Your task to perform on an android device: search for starred emails in the gmail app Image 0: 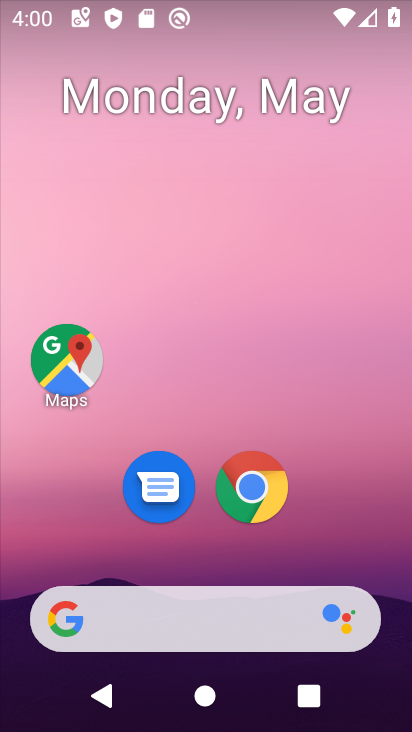
Step 0: drag from (290, 472) to (404, 198)
Your task to perform on an android device: search for starred emails in the gmail app Image 1: 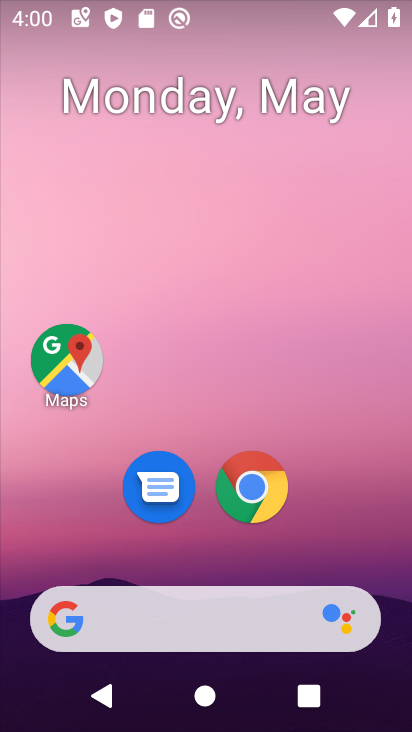
Step 1: click (239, 150)
Your task to perform on an android device: search for starred emails in the gmail app Image 2: 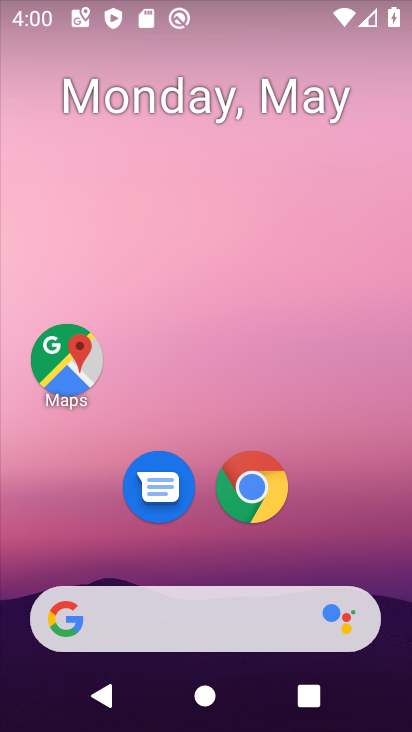
Step 2: drag from (224, 579) to (247, 129)
Your task to perform on an android device: search for starred emails in the gmail app Image 3: 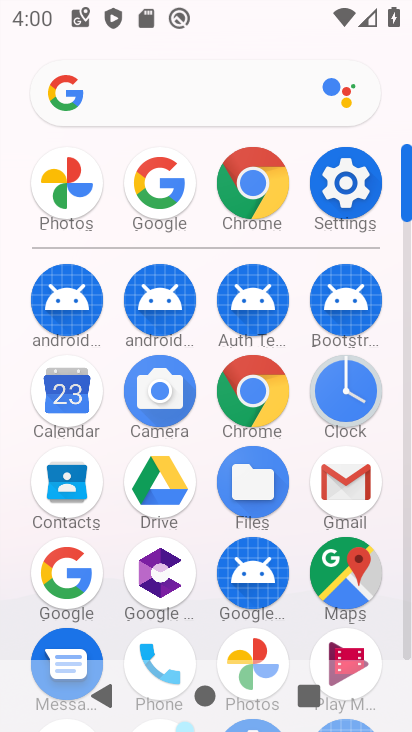
Step 3: click (325, 493)
Your task to perform on an android device: search for starred emails in the gmail app Image 4: 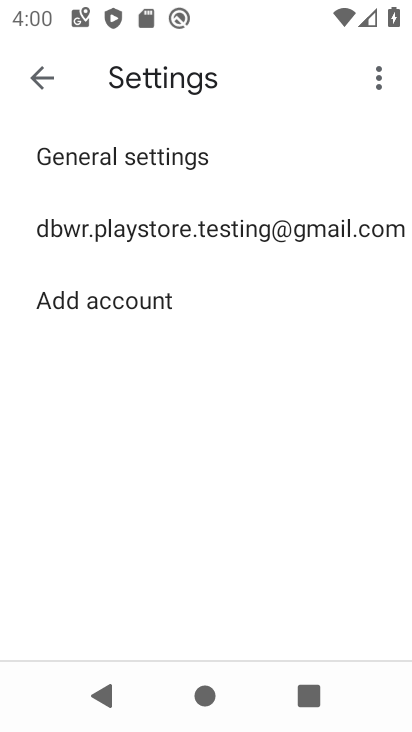
Step 4: click (42, 84)
Your task to perform on an android device: search for starred emails in the gmail app Image 5: 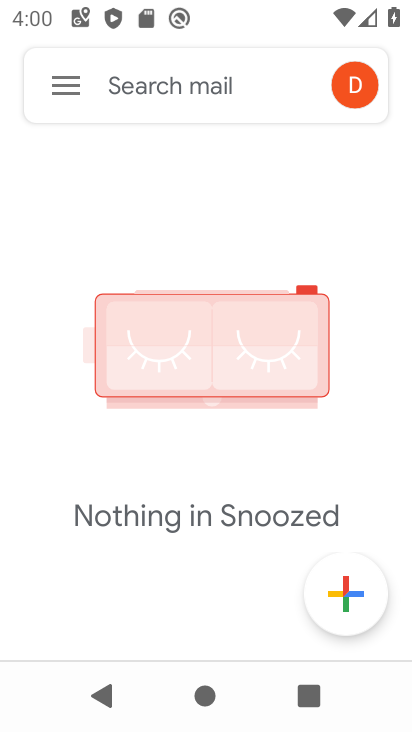
Step 5: click (68, 84)
Your task to perform on an android device: search for starred emails in the gmail app Image 6: 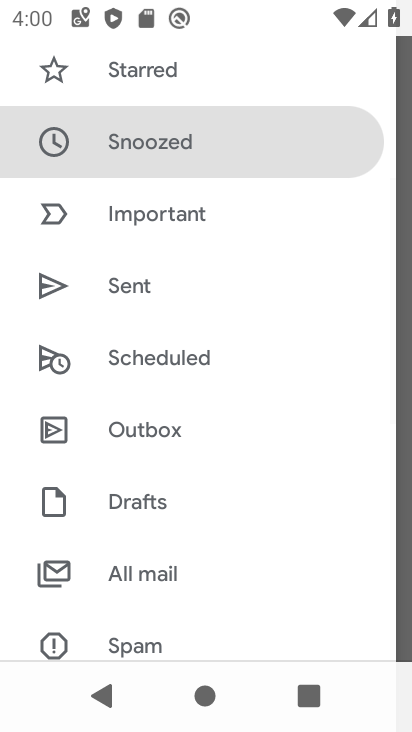
Step 6: click (158, 60)
Your task to perform on an android device: search for starred emails in the gmail app Image 7: 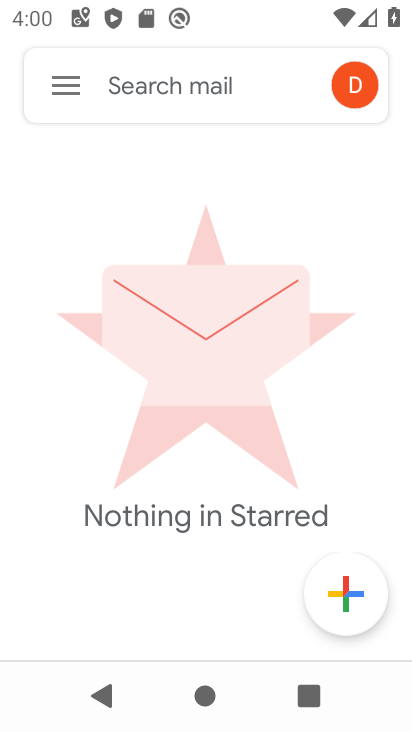
Step 7: task complete